Your task to perform on an android device: Search for flights from Barcelona to Boston Image 0: 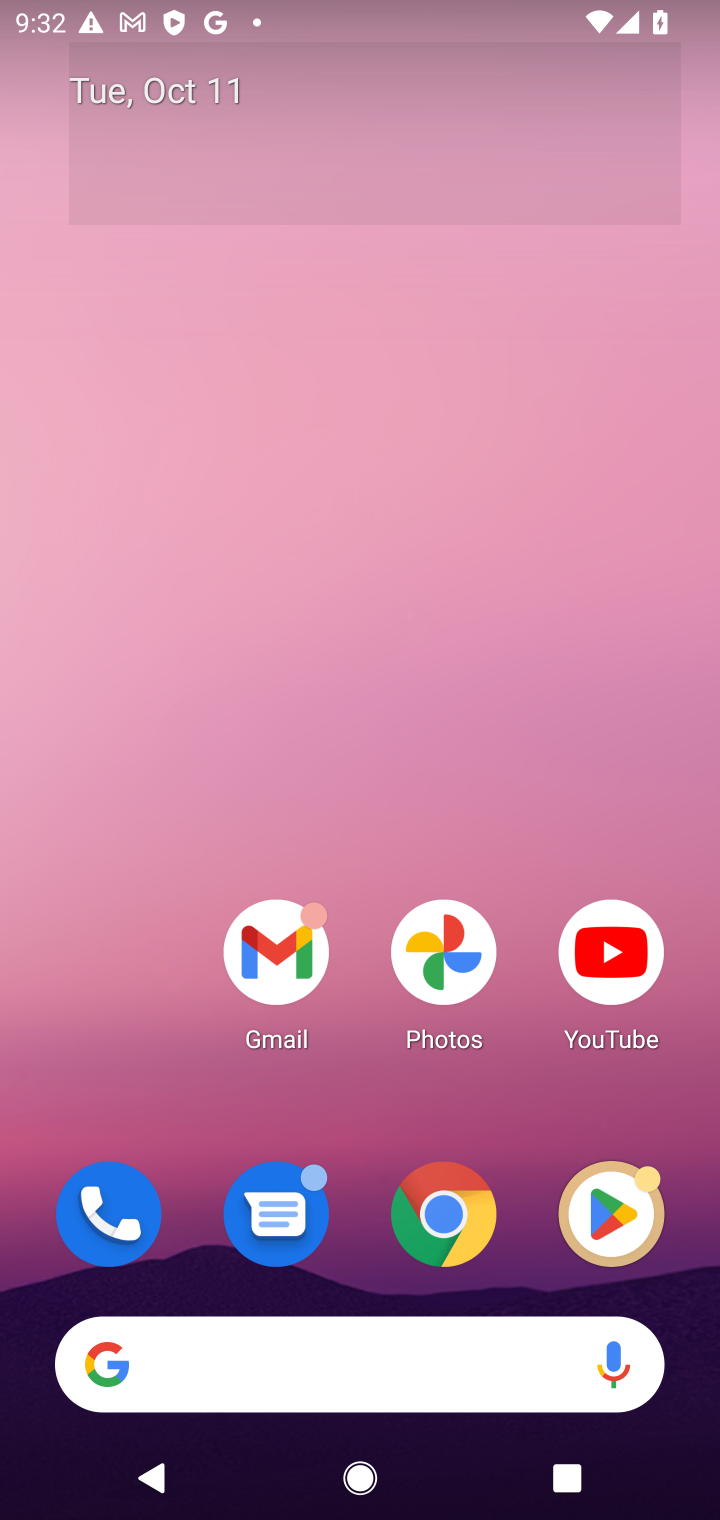
Step 0: drag from (544, 1289) to (323, 224)
Your task to perform on an android device: Search for flights from Barcelona to Boston Image 1: 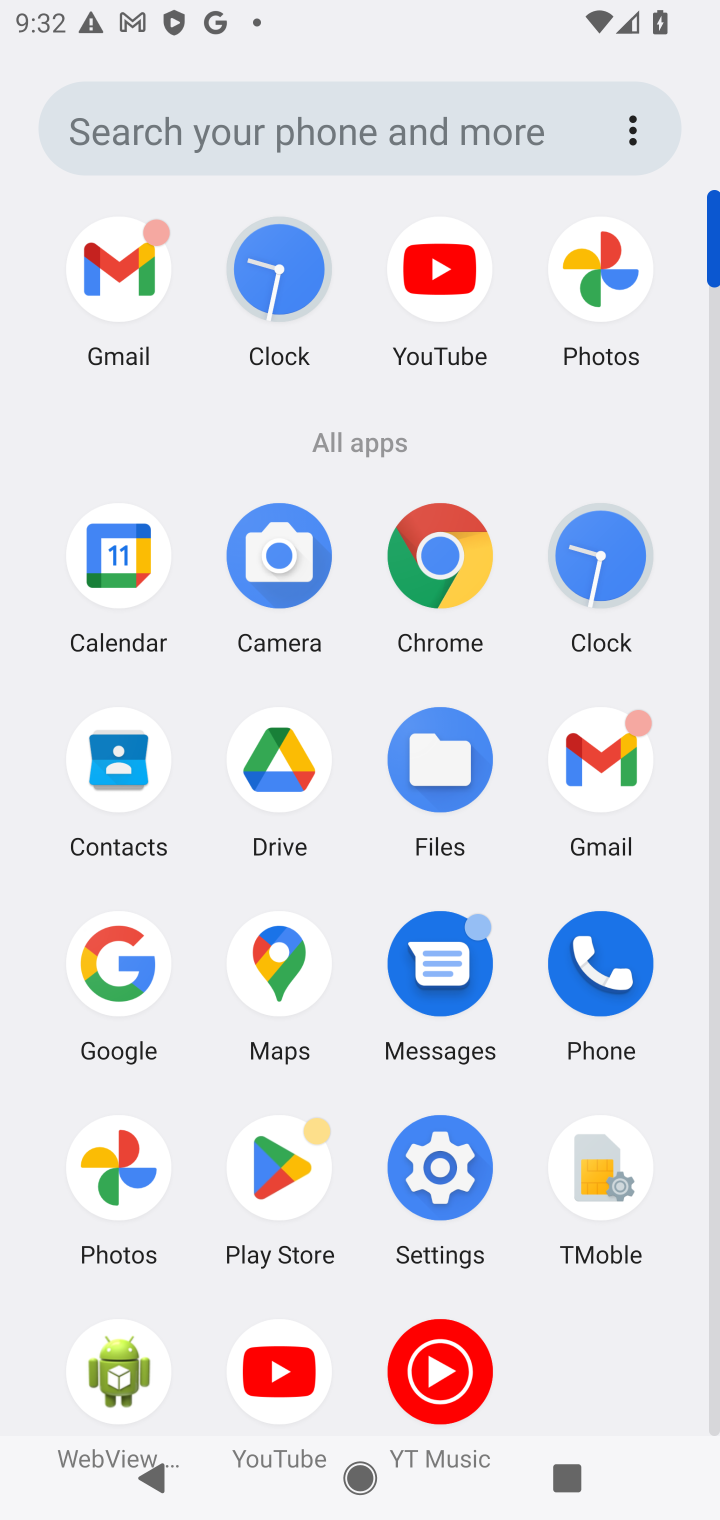
Step 1: click (430, 558)
Your task to perform on an android device: Search for flights from Barcelona to Boston Image 2: 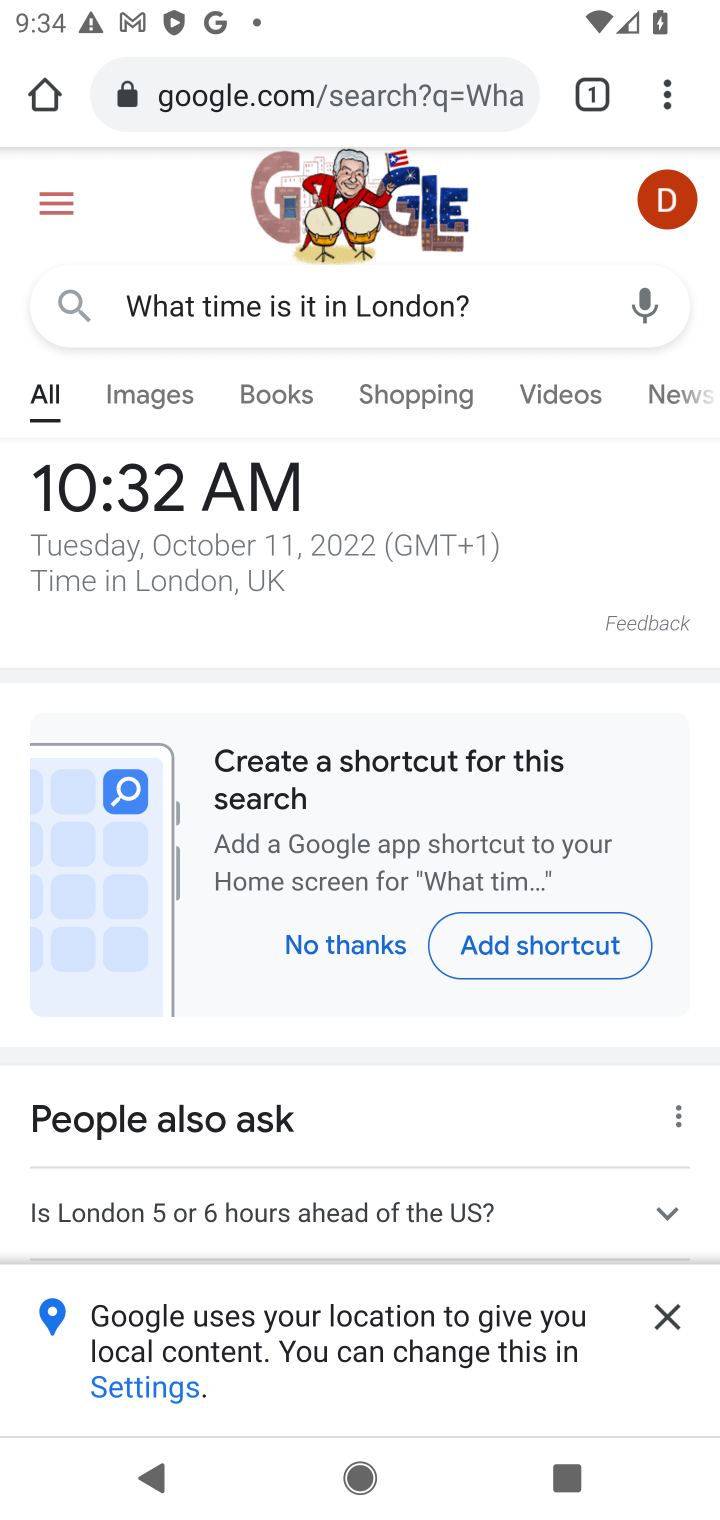
Step 2: task complete